Your task to perform on an android device: open chrome privacy settings Image 0: 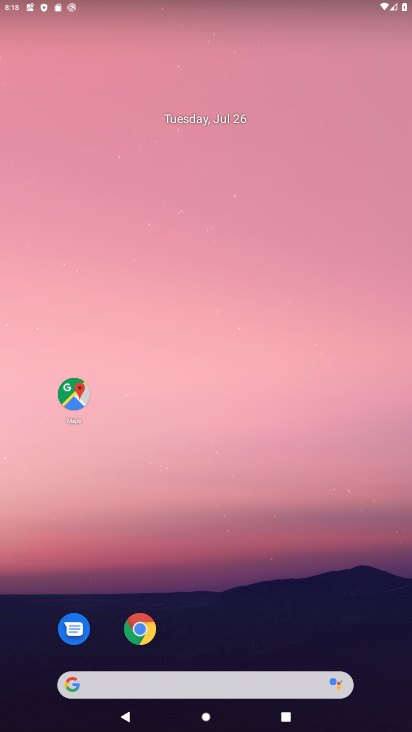
Step 0: press home button
Your task to perform on an android device: open chrome privacy settings Image 1: 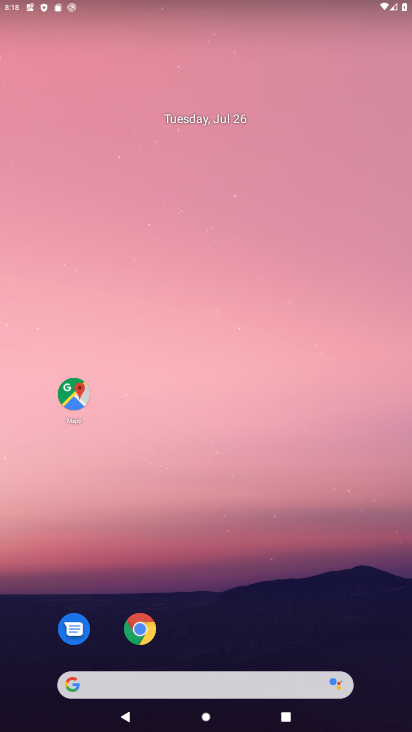
Step 1: click (139, 623)
Your task to perform on an android device: open chrome privacy settings Image 2: 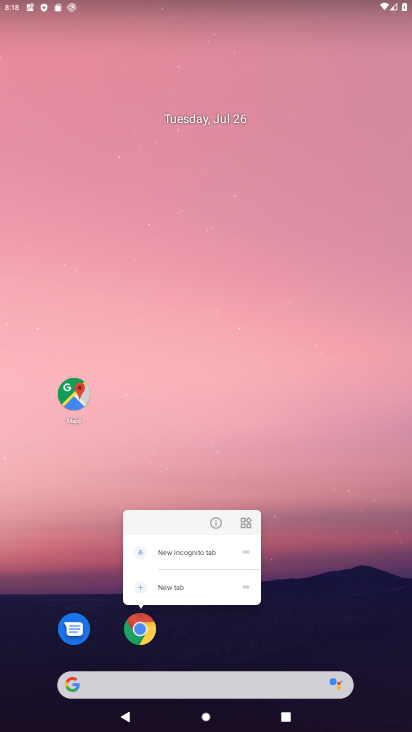
Step 2: click (135, 626)
Your task to perform on an android device: open chrome privacy settings Image 3: 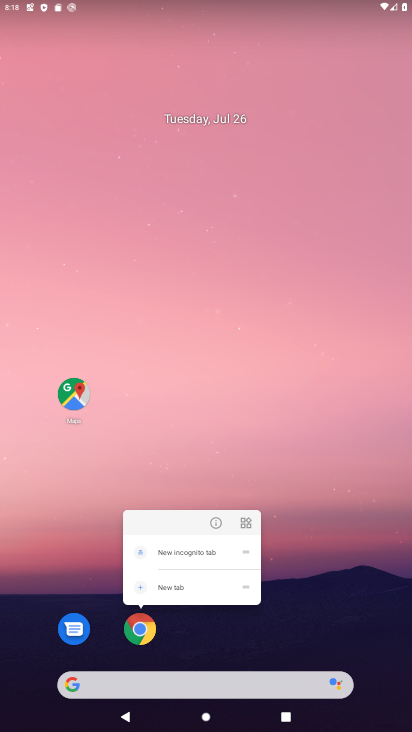
Step 3: click (324, 412)
Your task to perform on an android device: open chrome privacy settings Image 4: 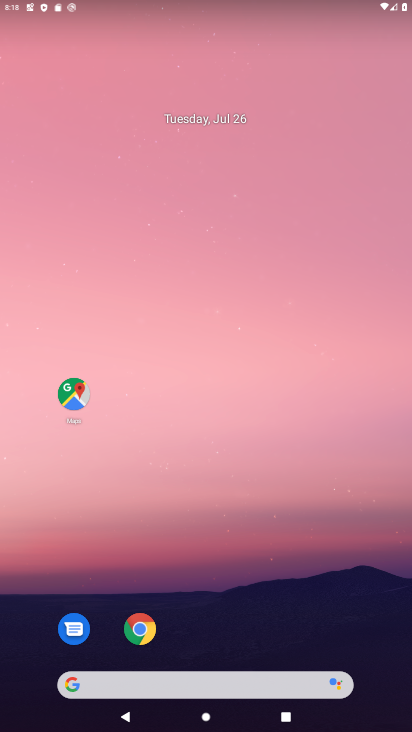
Step 4: click (142, 631)
Your task to perform on an android device: open chrome privacy settings Image 5: 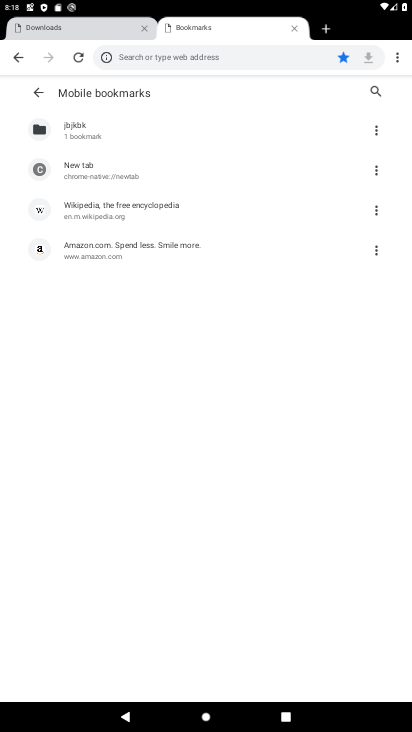
Step 5: click (395, 54)
Your task to perform on an android device: open chrome privacy settings Image 6: 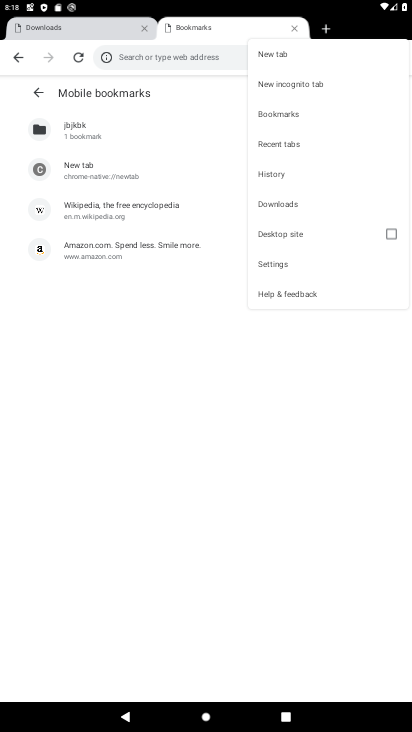
Step 6: click (291, 266)
Your task to perform on an android device: open chrome privacy settings Image 7: 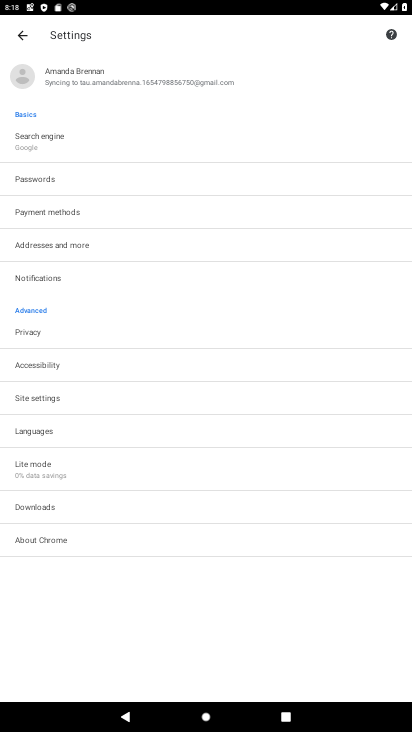
Step 7: click (52, 331)
Your task to perform on an android device: open chrome privacy settings Image 8: 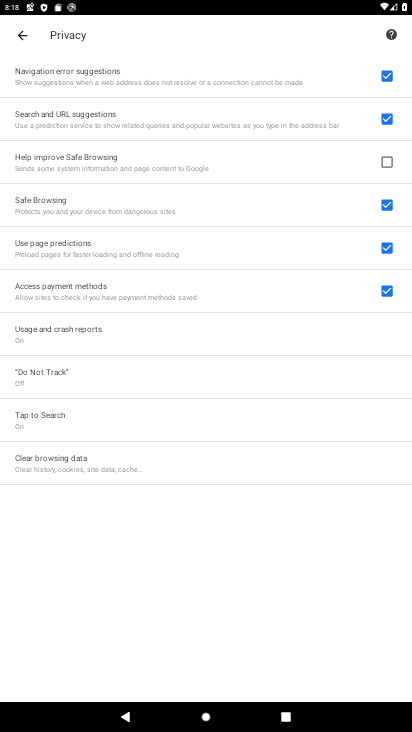
Step 8: task complete